Your task to perform on an android device: Open Youtube and go to "Your channel" Image 0: 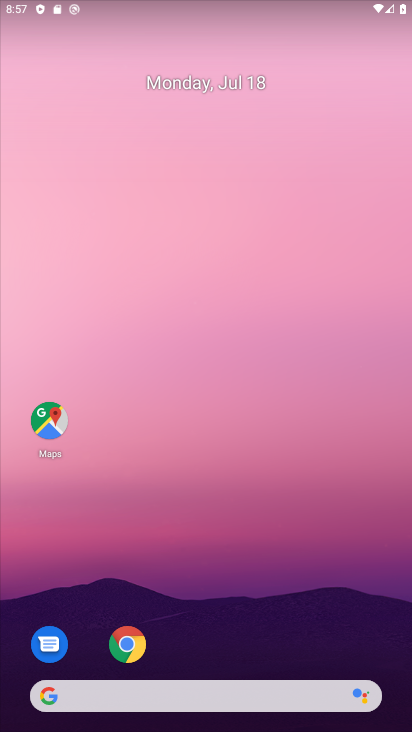
Step 0: drag from (294, 520) to (343, 226)
Your task to perform on an android device: Open Youtube and go to "Your channel" Image 1: 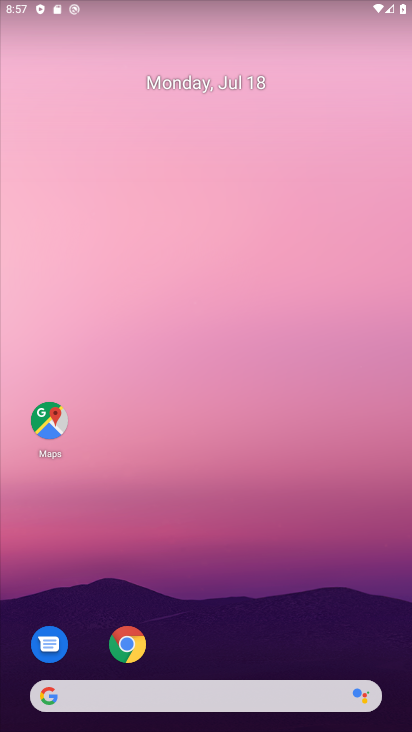
Step 1: drag from (209, 687) to (252, 102)
Your task to perform on an android device: Open Youtube and go to "Your channel" Image 2: 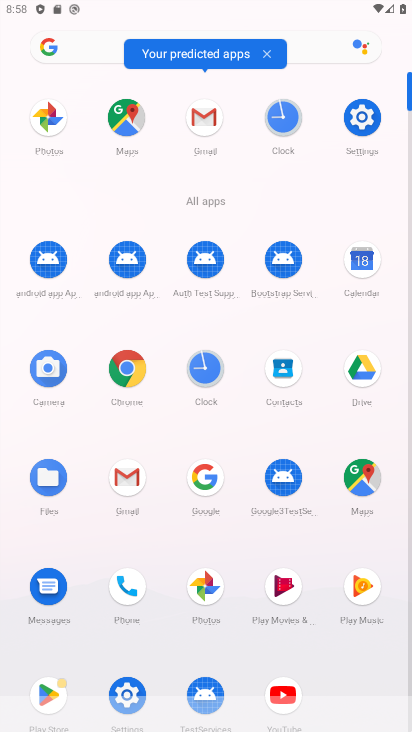
Step 2: click (283, 687)
Your task to perform on an android device: Open Youtube and go to "Your channel" Image 3: 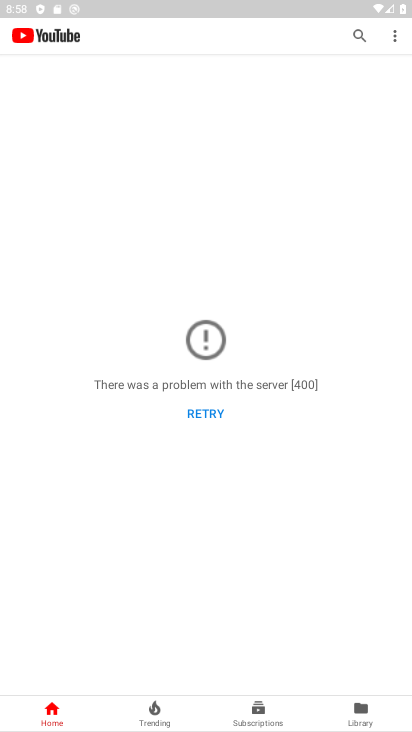
Step 3: task complete